Your task to perform on an android device: turn off sleep mode Image 0: 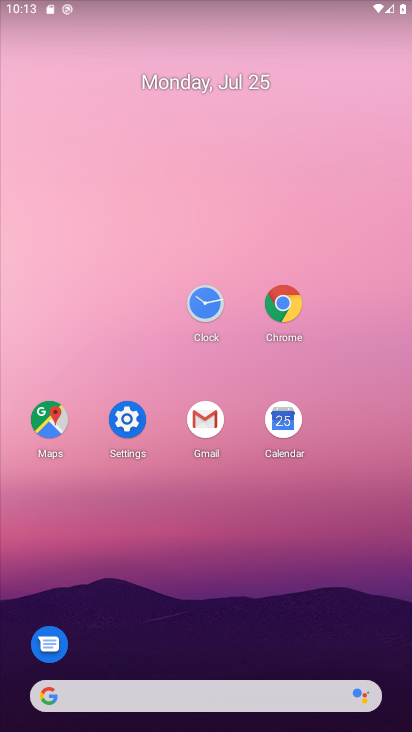
Step 0: click (131, 414)
Your task to perform on an android device: turn off sleep mode Image 1: 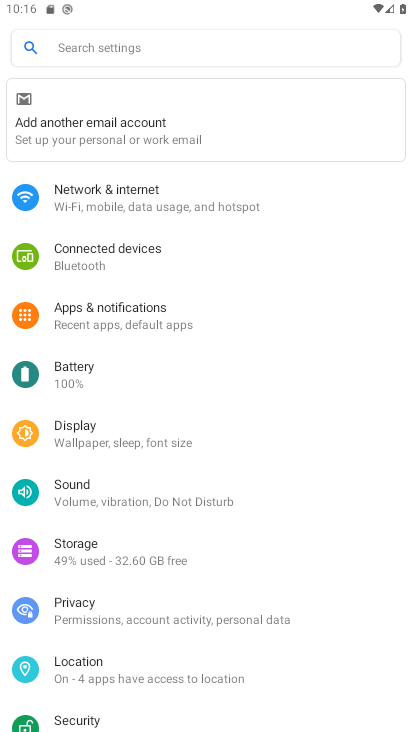
Step 1: click (92, 436)
Your task to perform on an android device: turn off sleep mode Image 2: 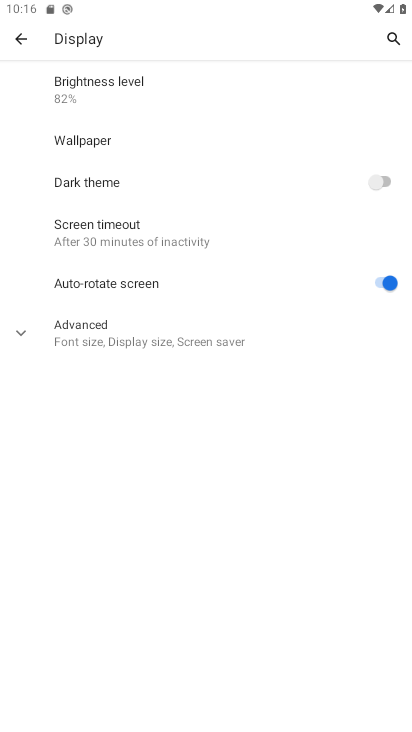
Step 2: task complete